Your task to perform on an android device: Open CNN.com Image 0: 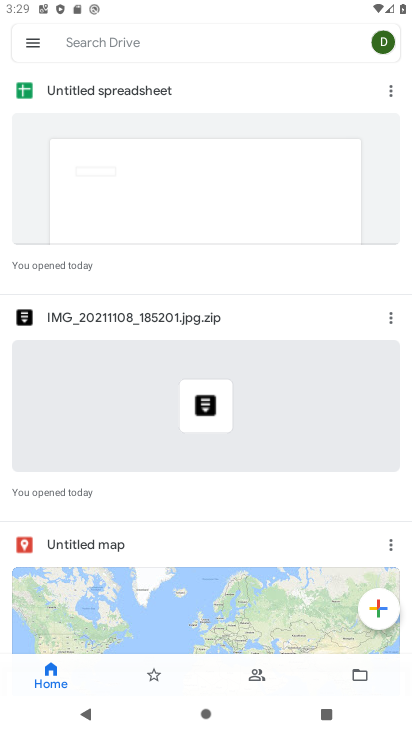
Step 0: press home button
Your task to perform on an android device: Open CNN.com Image 1: 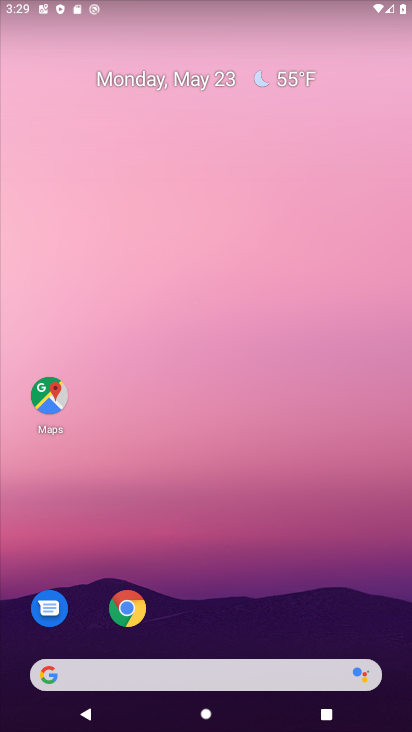
Step 1: click (140, 604)
Your task to perform on an android device: Open CNN.com Image 2: 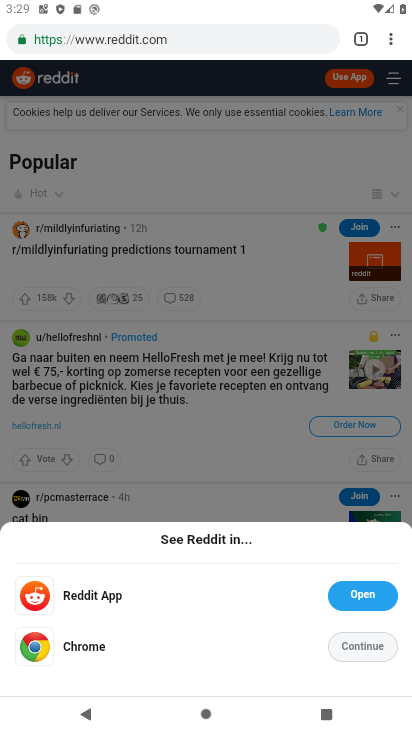
Step 2: click (361, 35)
Your task to perform on an android device: Open CNN.com Image 3: 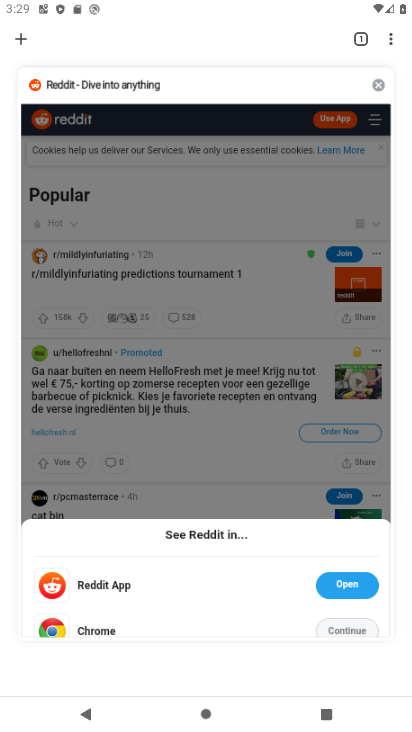
Step 3: click (19, 43)
Your task to perform on an android device: Open CNN.com Image 4: 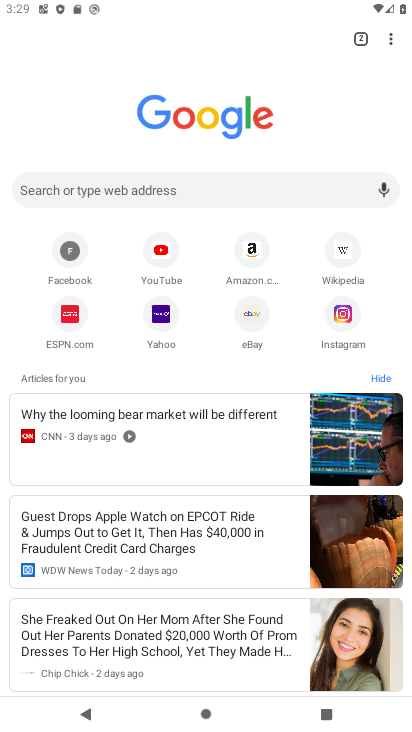
Step 4: click (185, 184)
Your task to perform on an android device: Open CNN.com Image 5: 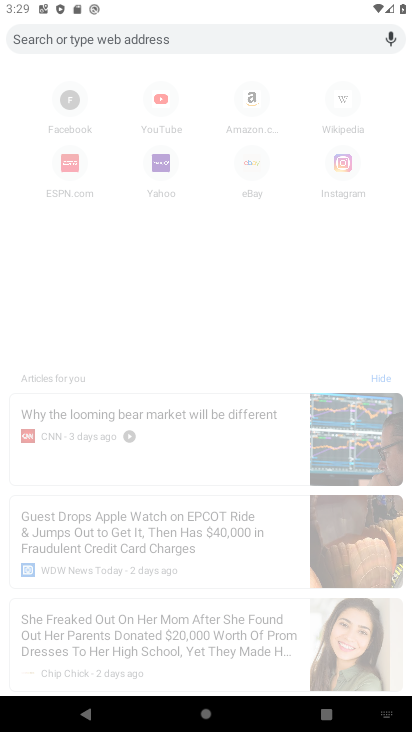
Step 5: type "CNN.com"
Your task to perform on an android device: Open CNN.com Image 6: 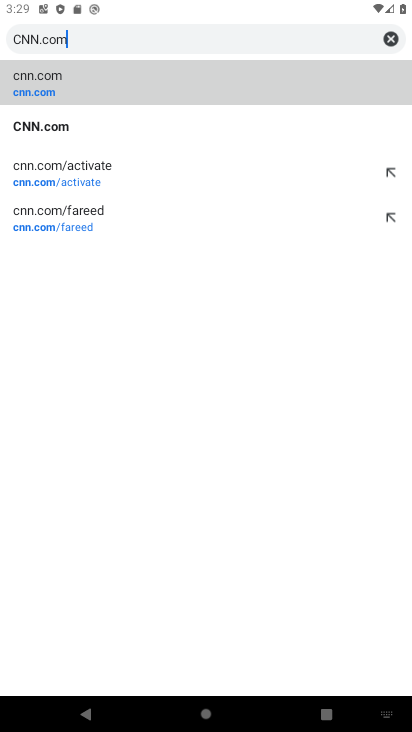
Step 6: click (100, 93)
Your task to perform on an android device: Open CNN.com Image 7: 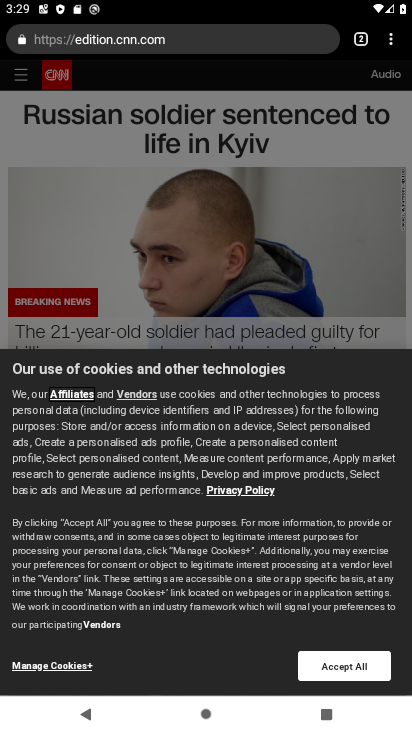
Step 7: task complete